Your task to perform on an android device: Search for pizza restaurants on Maps Image 0: 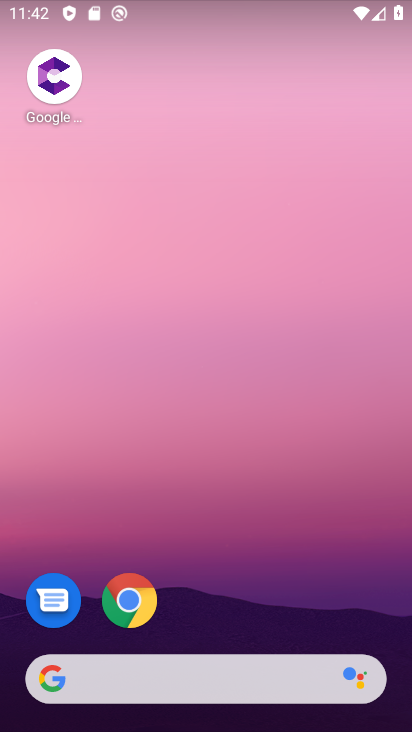
Step 0: drag from (80, 514) to (61, 298)
Your task to perform on an android device: Search for pizza restaurants on Maps Image 1: 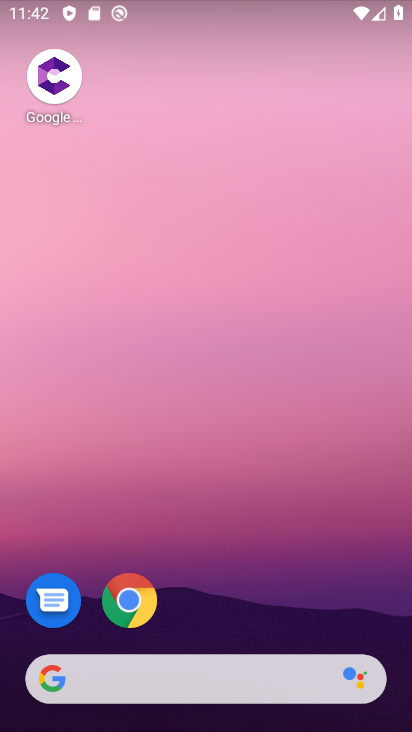
Step 1: drag from (96, 633) to (45, 240)
Your task to perform on an android device: Search for pizza restaurants on Maps Image 2: 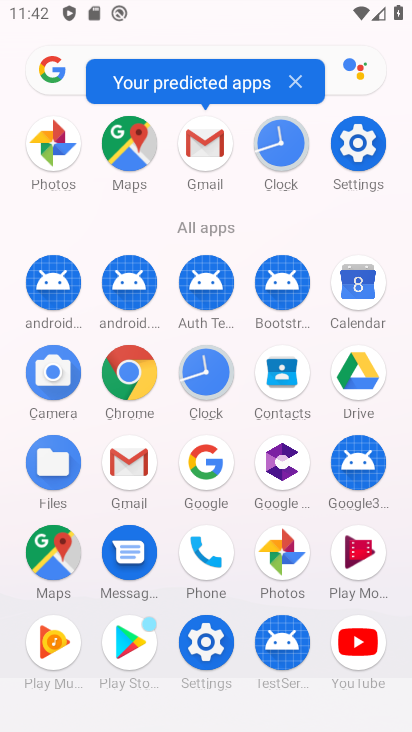
Step 2: click (58, 565)
Your task to perform on an android device: Search for pizza restaurants on Maps Image 3: 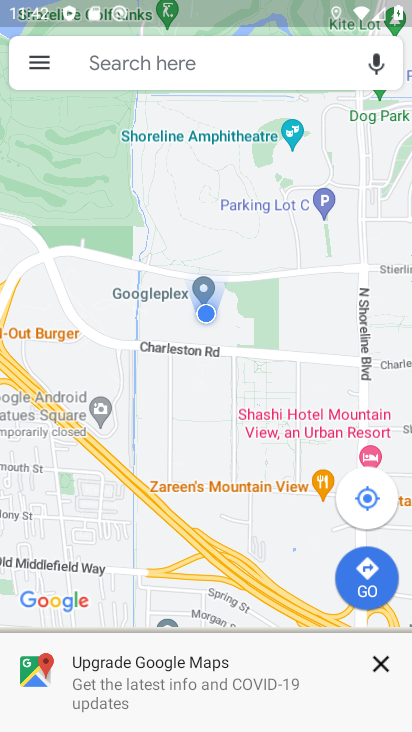
Step 3: click (187, 63)
Your task to perform on an android device: Search for pizza restaurants on Maps Image 4: 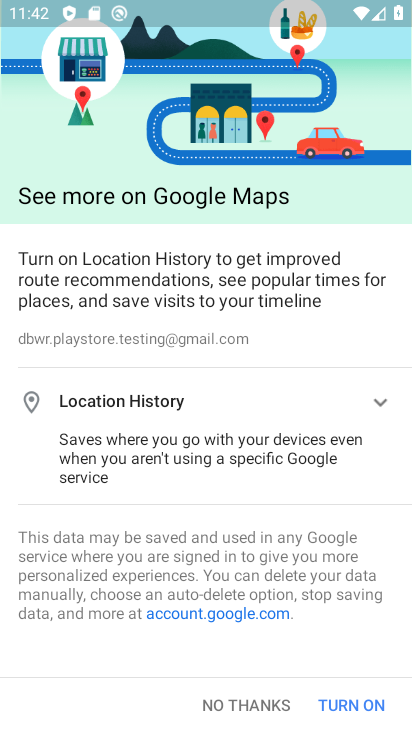
Step 4: click (365, 697)
Your task to perform on an android device: Search for pizza restaurants on Maps Image 5: 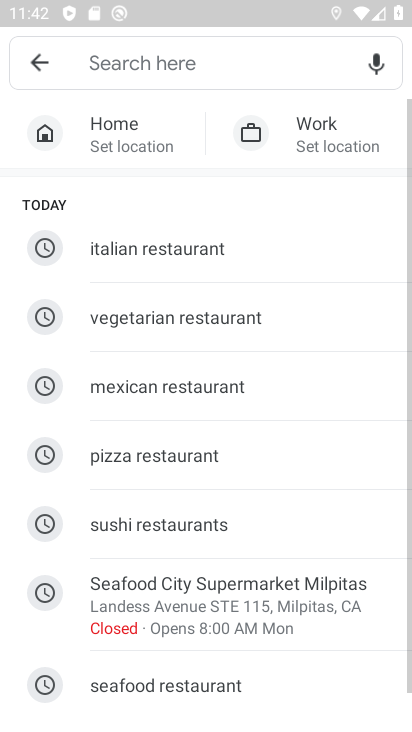
Step 5: click (158, 63)
Your task to perform on an android device: Search for pizza restaurants on Maps Image 6: 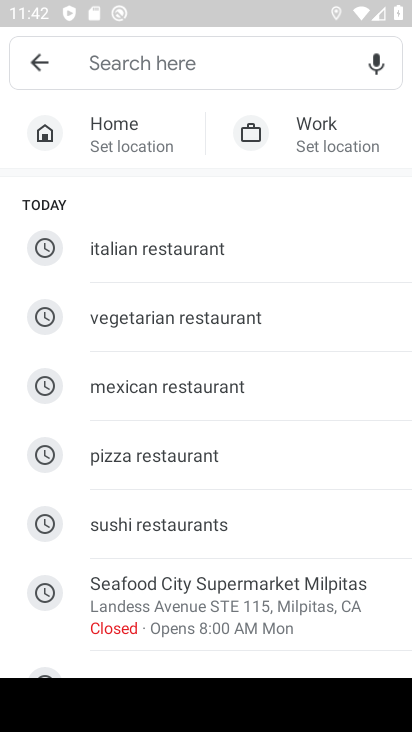
Step 6: type "pizza restaurants"
Your task to perform on an android device: Search for pizza restaurants on Maps Image 7: 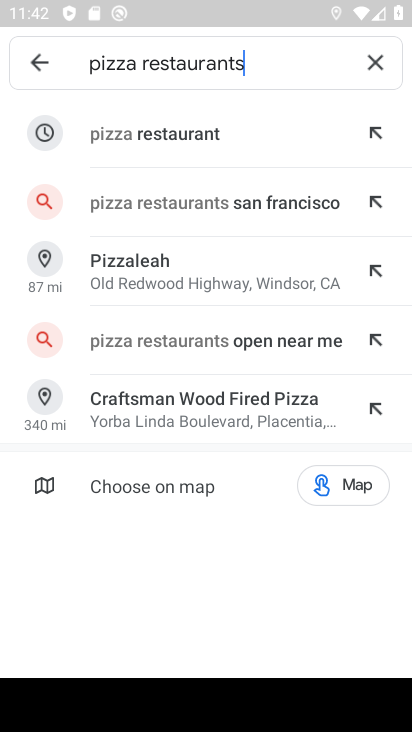
Step 7: click (175, 138)
Your task to perform on an android device: Search for pizza restaurants on Maps Image 8: 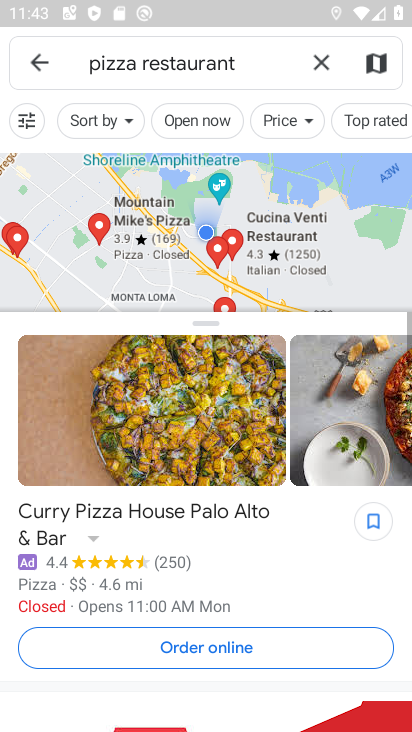
Step 8: task complete